Your task to perform on an android device: Open Chrome and go to the settings page Image 0: 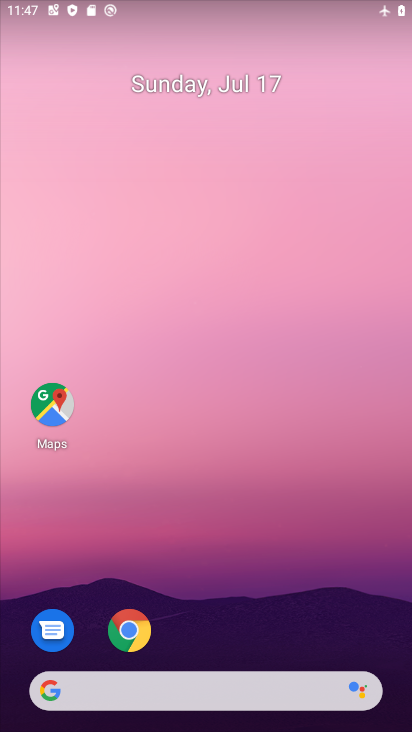
Step 0: click (129, 637)
Your task to perform on an android device: Open Chrome and go to the settings page Image 1: 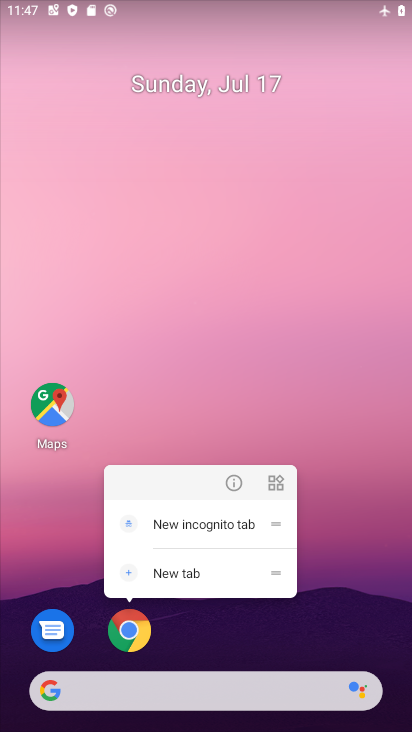
Step 1: click (124, 637)
Your task to perform on an android device: Open Chrome and go to the settings page Image 2: 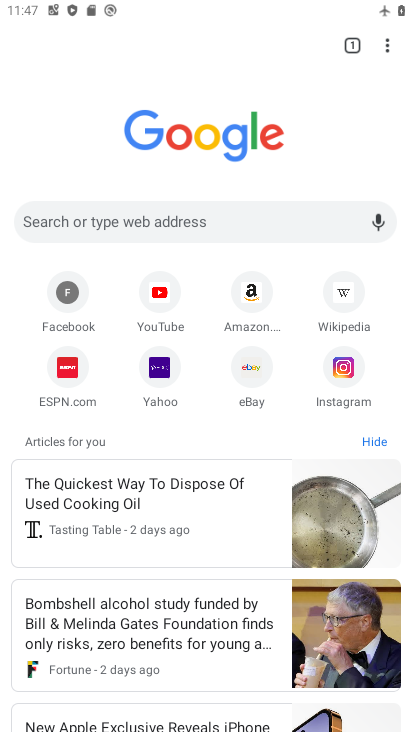
Step 2: click (388, 43)
Your task to perform on an android device: Open Chrome and go to the settings page Image 3: 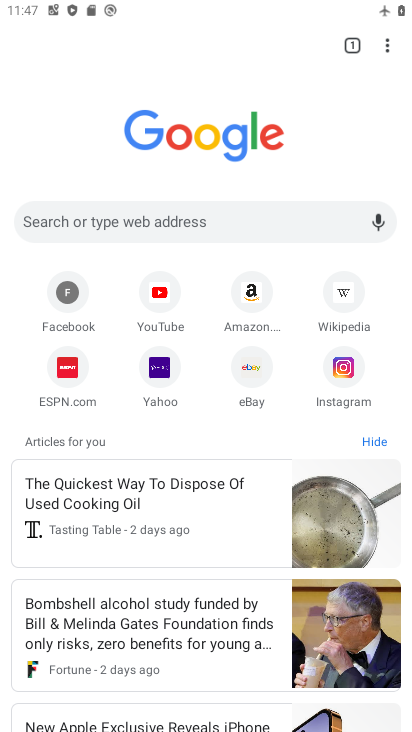
Step 3: click (388, 43)
Your task to perform on an android device: Open Chrome and go to the settings page Image 4: 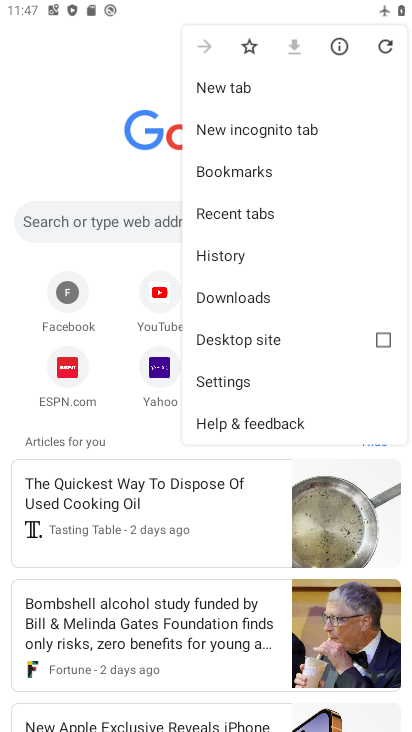
Step 4: click (226, 386)
Your task to perform on an android device: Open Chrome and go to the settings page Image 5: 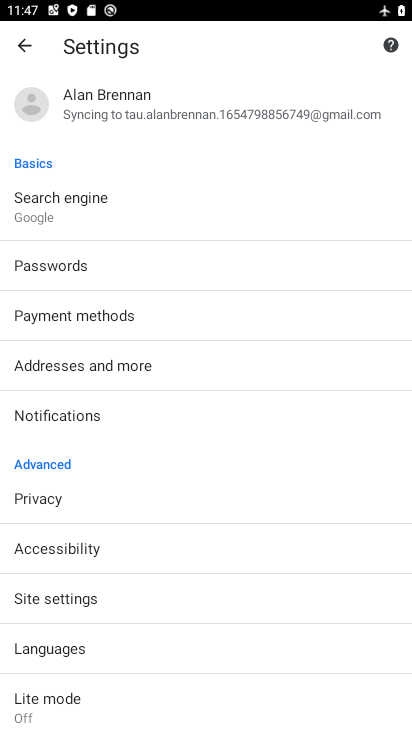
Step 5: task complete